Your task to perform on an android device: turn on data saver in the chrome app Image 0: 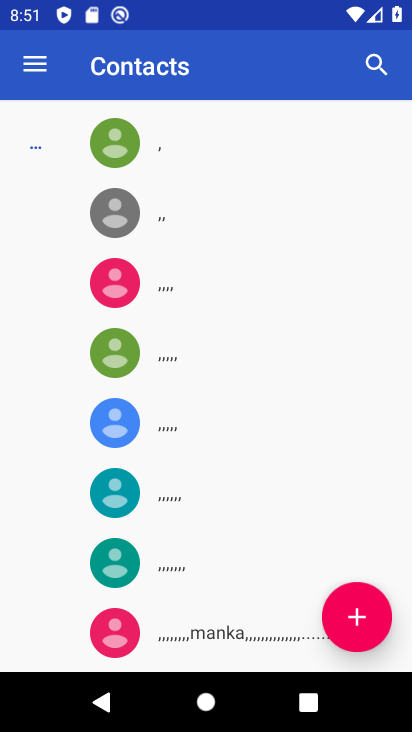
Step 0: press home button
Your task to perform on an android device: turn on data saver in the chrome app Image 1: 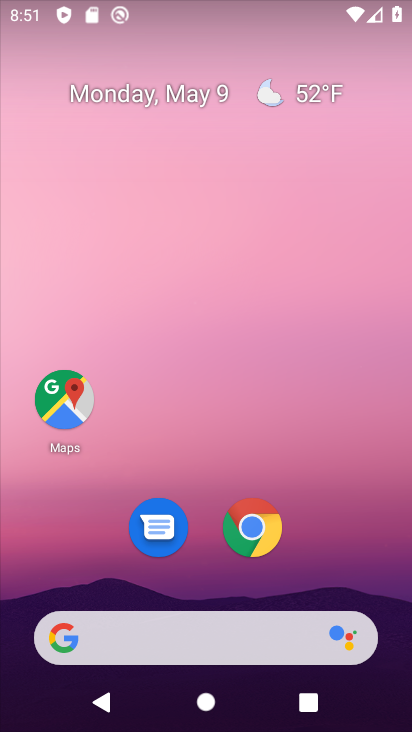
Step 1: drag from (312, 532) to (329, 138)
Your task to perform on an android device: turn on data saver in the chrome app Image 2: 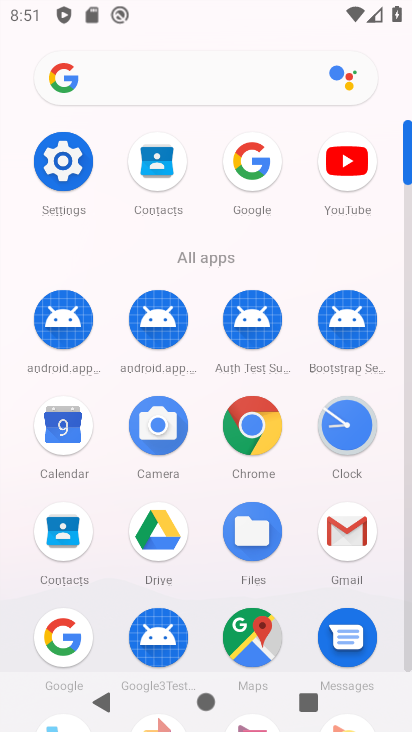
Step 2: click (266, 427)
Your task to perform on an android device: turn on data saver in the chrome app Image 3: 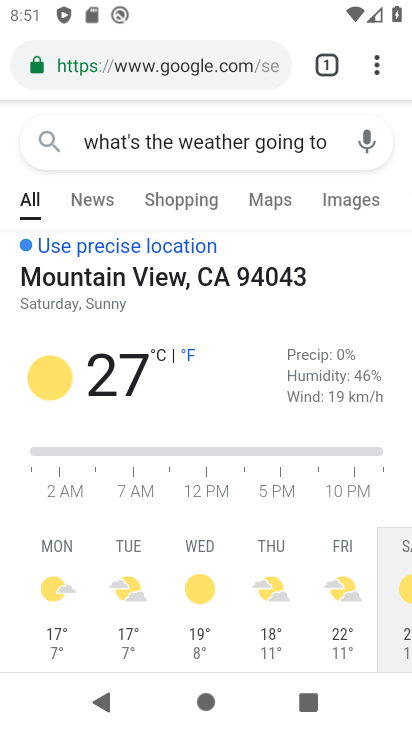
Step 3: drag from (380, 70) to (187, 581)
Your task to perform on an android device: turn on data saver in the chrome app Image 4: 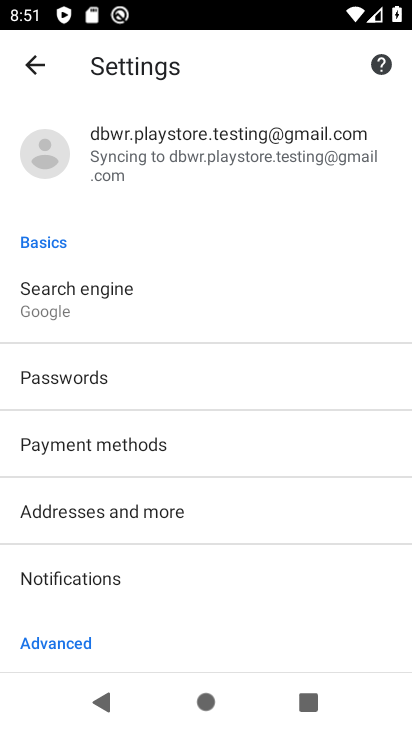
Step 4: drag from (184, 622) to (282, 253)
Your task to perform on an android device: turn on data saver in the chrome app Image 5: 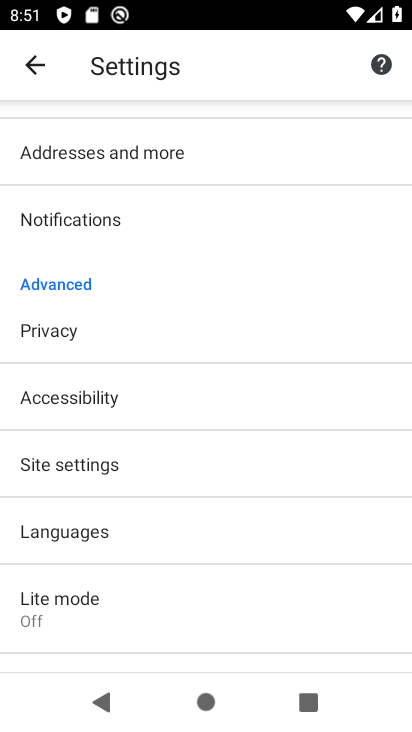
Step 5: click (112, 598)
Your task to perform on an android device: turn on data saver in the chrome app Image 6: 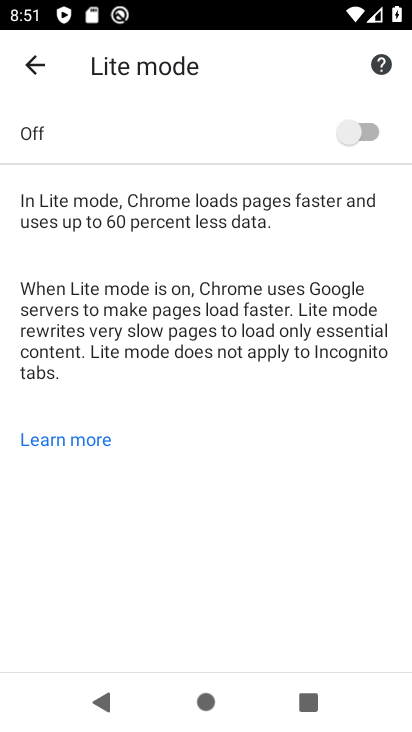
Step 6: click (375, 135)
Your task to perform on an android device: turn on data saver in the chrome app Image 7: 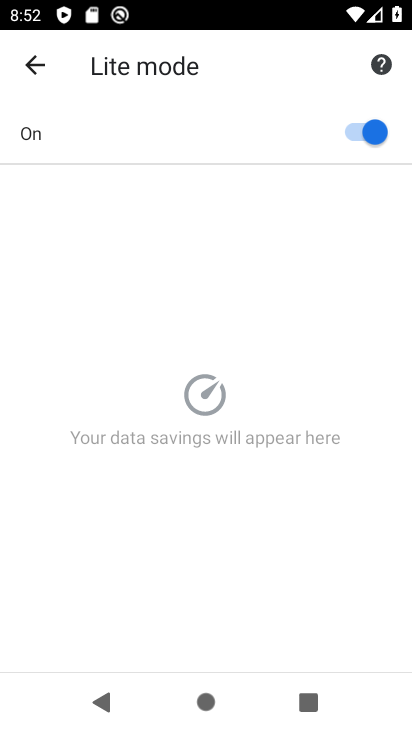
Step 7: task complete